Your task to perform on an android device: Go to Google maps Image 0: 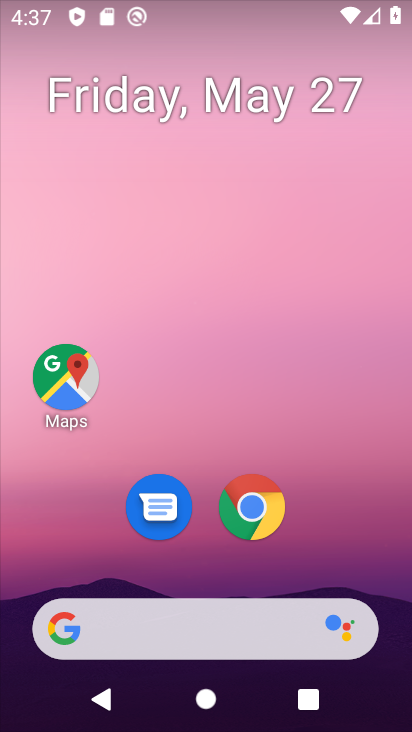
Step 0: click (69, 381)
Your task to perform on an android device: Go to Google maps Image 1: 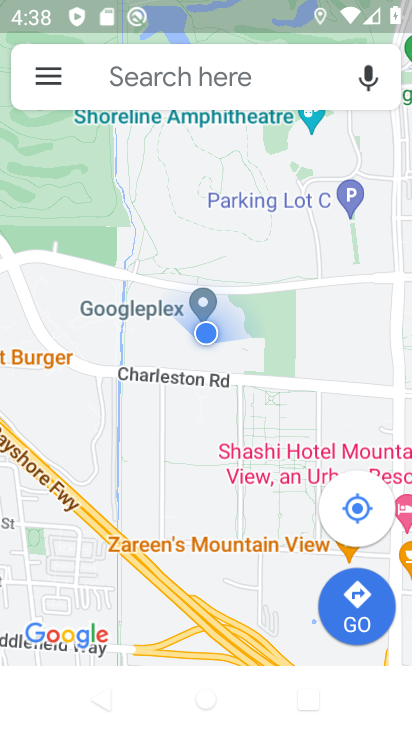
Step 1: task complete